Your task to perform on an android device: Go to Android settings Image 0: 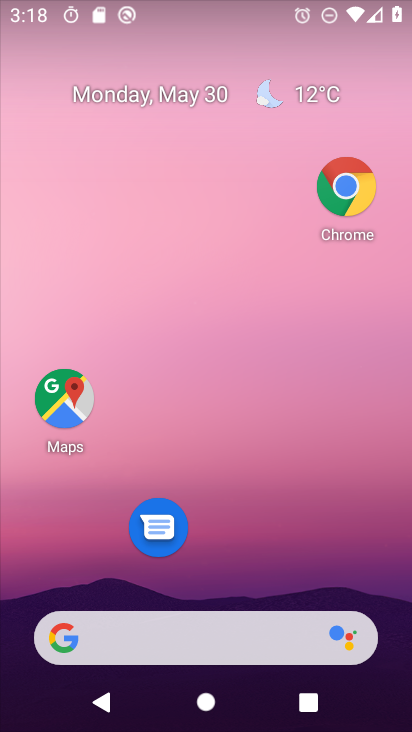
Step 0: click (411, 75)
Your task to perform on an android device: Go to Android settings Image 1: 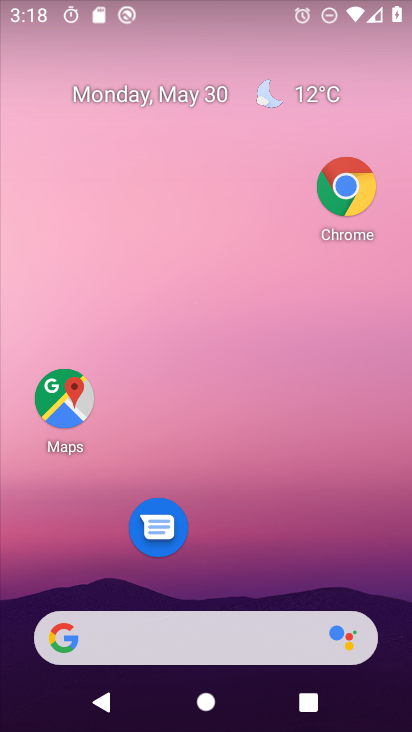
Step 1: drag from (232, 430) to (334, 41)
Your task to perform on an android device: Go to Android settings Image 2: 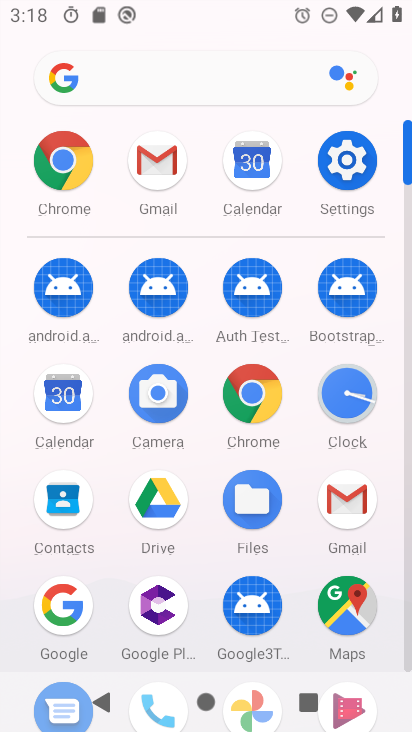
Step 2: click (345, 157)
Your task to perform on an android device: Go to Android settings Image 3: 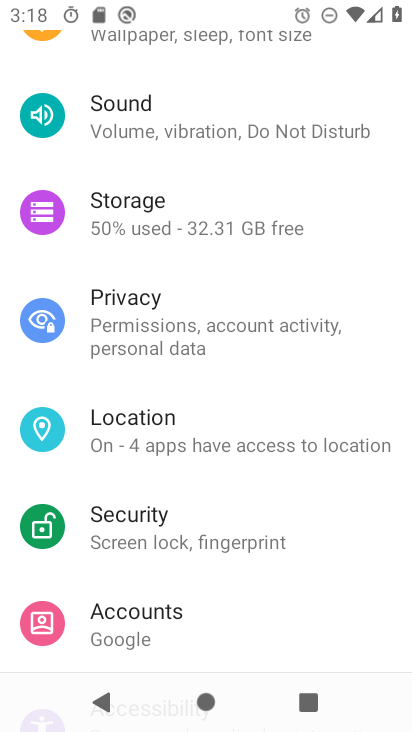
Step 3: drag from (180, 547) to (312, 68)
Your task to perform on an android device: Go to Android settings Image 4: 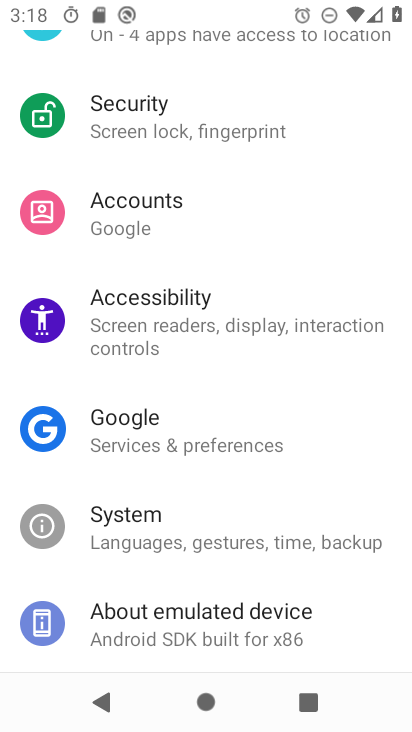
Step 4: drag from (220, 596) to (345, 216)
Your task to perform on an android device: Go to Android settings Image 5: 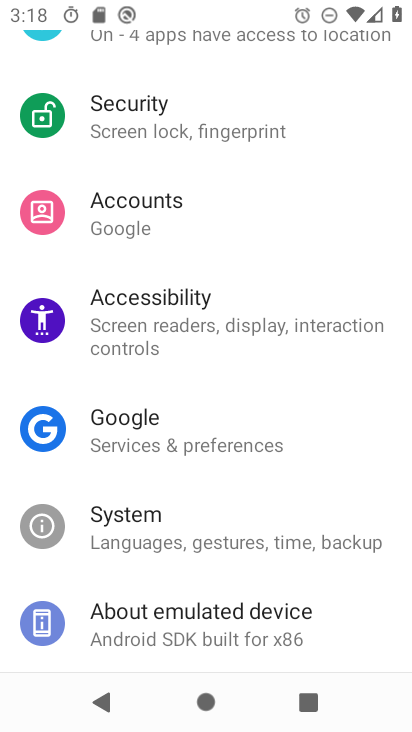
Step 5: click (188, 597)
Your task to perform on an android device: Go to Android settings Image 6: 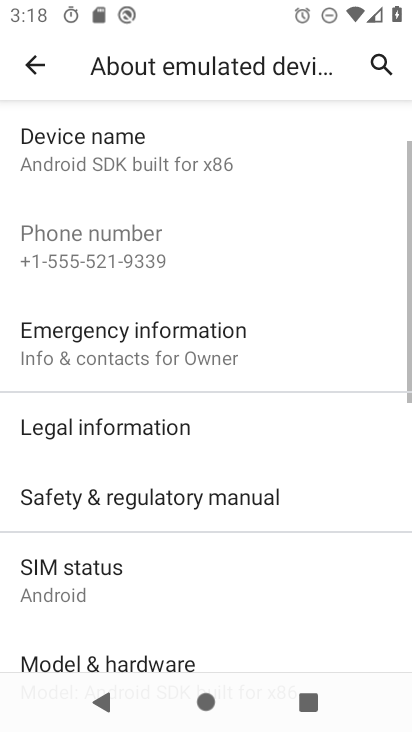
Step 6: drag from (225, 577) to (321, 28)
Your task to perform on an android device: Go to Android settings Image 7: 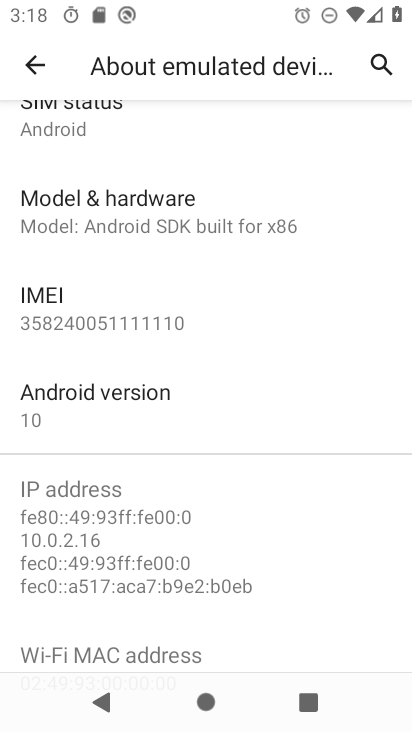
Step 7: click (151, 383)
Your task to perform on an android device: Go to Android settings Image 8: 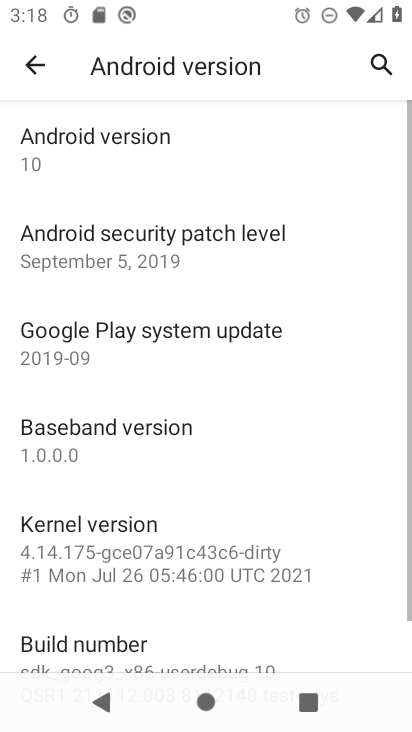
Step 8: task complete